Your task to perform on an android device: turn on bluetooth scan Image 0: 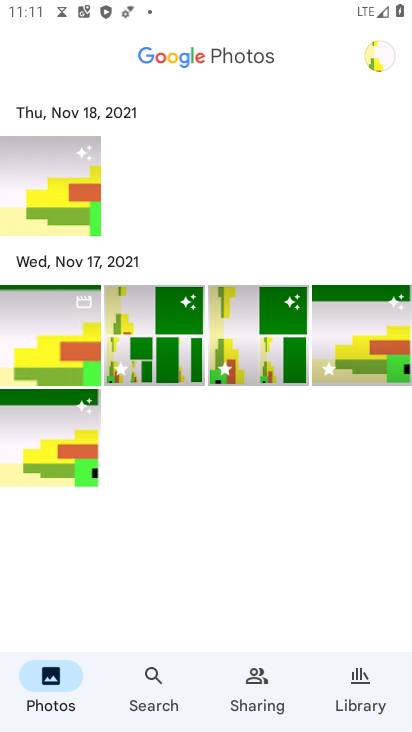
Step 0: press back button
Your task to perform on an android device: turn on bluetooth scan Image 1: 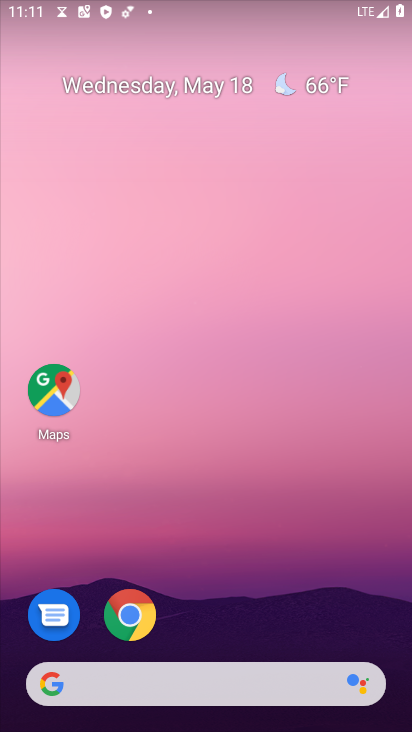
Step 1: drag from (280, 576) to (259, 4)
Your task to perform on an android device: turn on bluetooth scan Image 2: 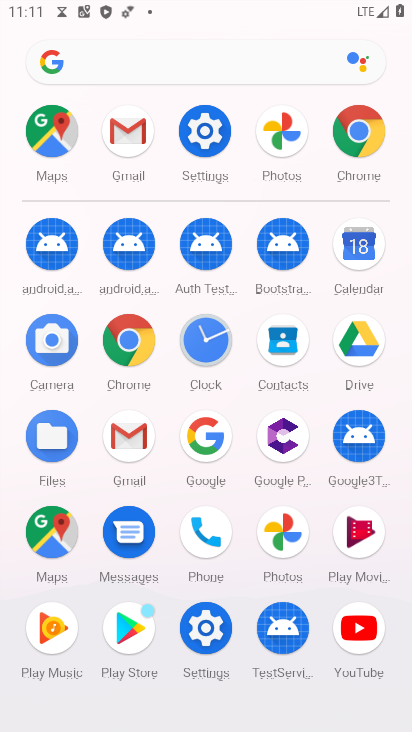
Step 2: click (205, 625)
Your task to perform on an android device: turn on bluetooth scan Image 3: 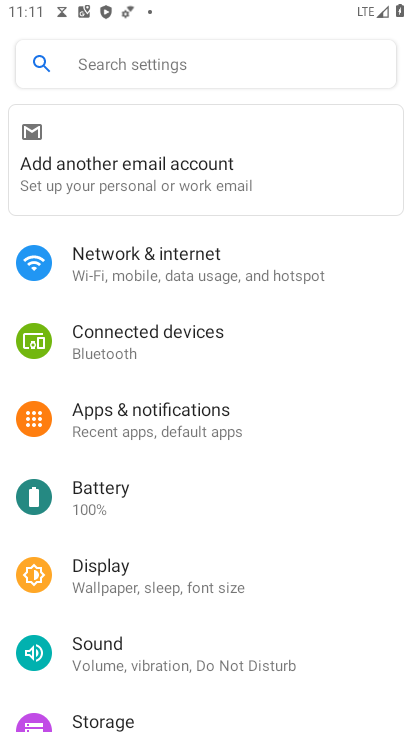
Step 3: drag from (232, 633) to (294, 342)
Your task to perform on an android device: turn on bluetooth scan Image 4: 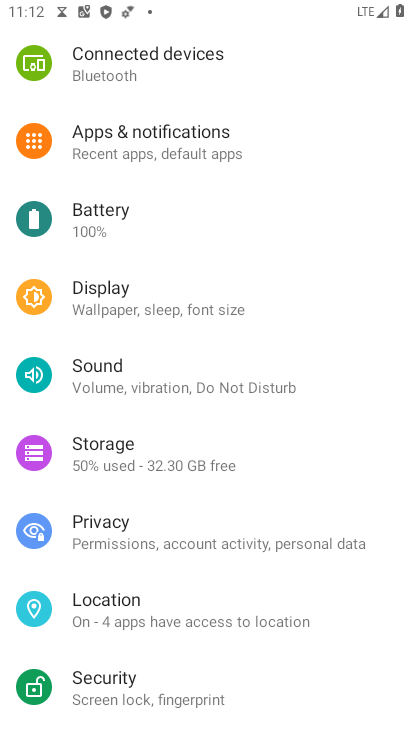
Step 4: click (194, 605)
Your task to perform on an android device: turn on bluetooth scan Image 5: 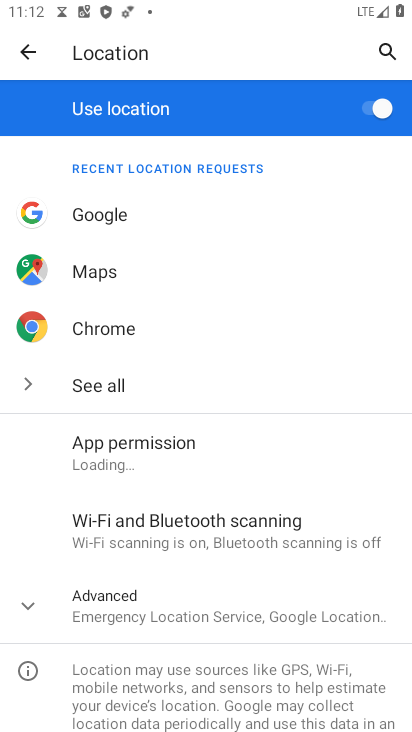
Step 5: click (221, 531)
Your task to perform on an android device: turn on bluetooth scan Image 6: 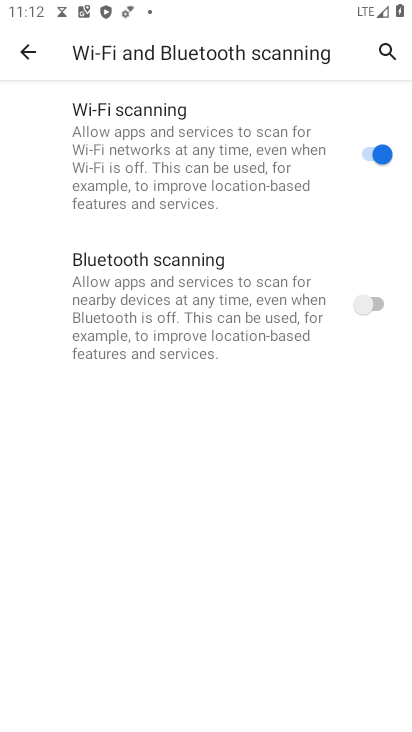
Step 6: click (368, 296)
Your task to perform on an android device: turn on bluetooth scan Image 7: 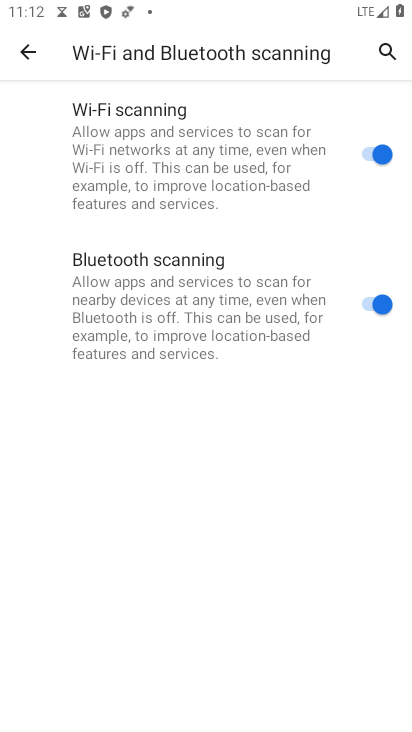
Step 7: task complete